Your task to perform on an android device: Open accessibility settings Image 0: 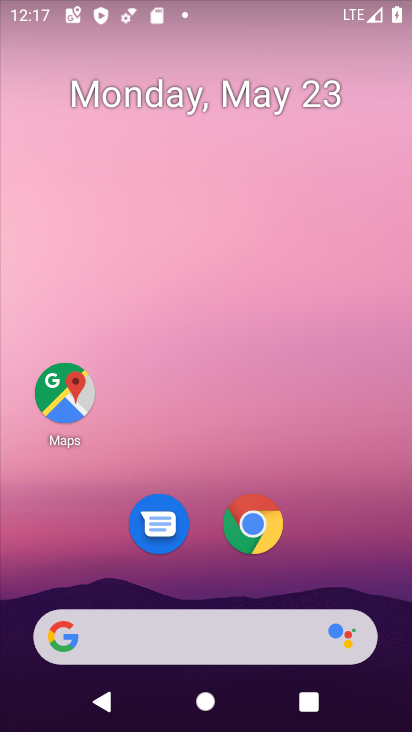
Step 0: drag from (322, 518) to (288, 1)
Your task to perform on an android device: Open accessibility settings Image 1: 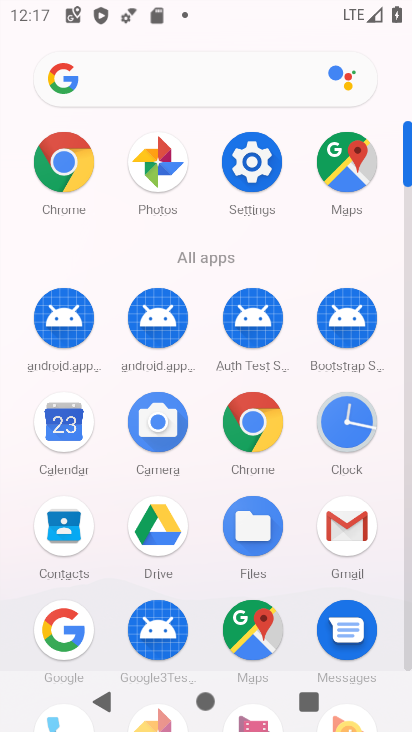
Step 1: click (247, 158)
Your task to perform on an android device: Open accessibility settings Image 2: 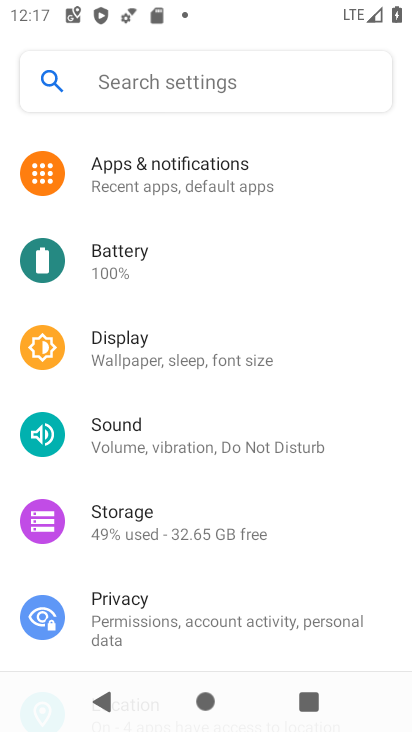
Step 2: drag from (250, 556) to (310, 180)
Your task to perform on an android device: Open accessibility settings Image 3: 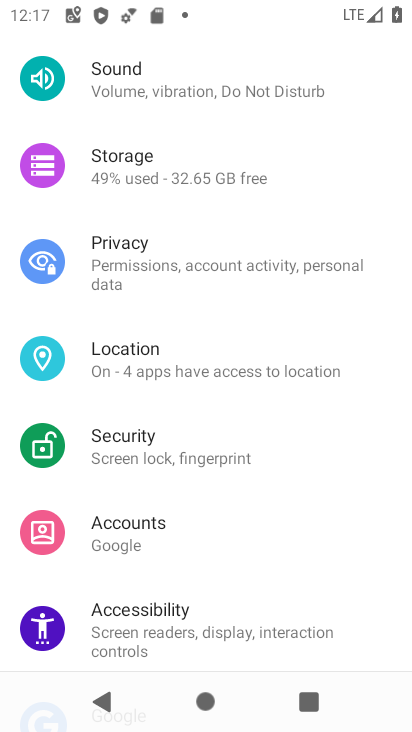
Step 3: click (195, 615)
Your task to perform on an android device: Open accessibility settings Image 4: 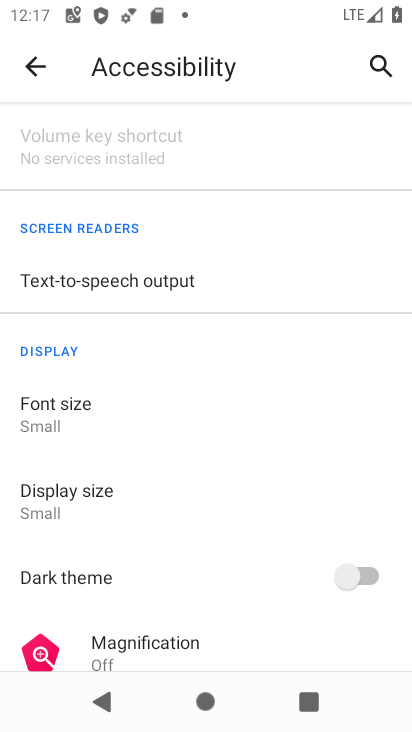
Step 4: task complete